Your task to perform on an android device: Open Google Image 0: 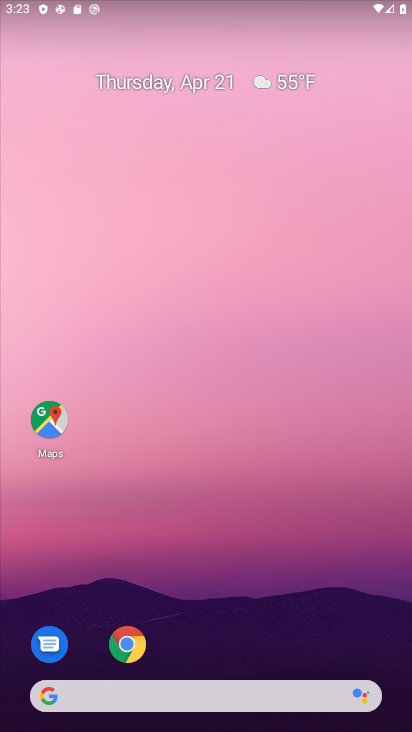
Step 0: drag from (227, 728) to (231, 95)
Your task to perform on an android device: Open Google Image 1: 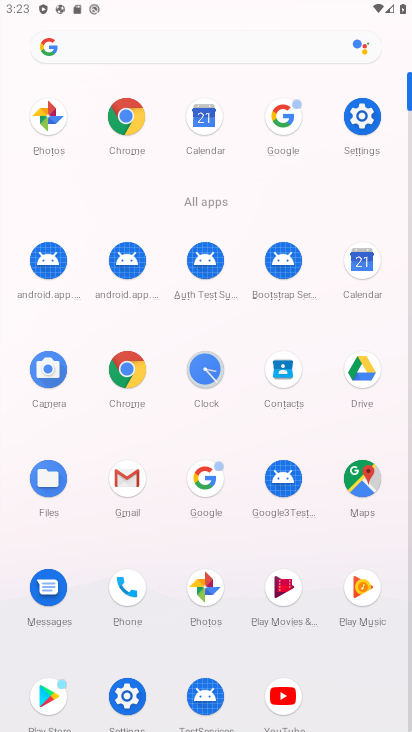
Step 1: click (204, 473)
Your task to perform on an android device: Open Google Image 2: 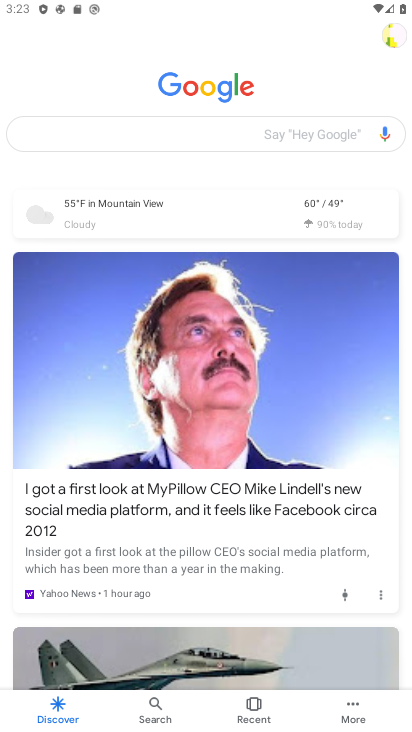
Step 2: task complete